Your task to perform on an android device: turn vacation reply on in the gmail app Image 0: 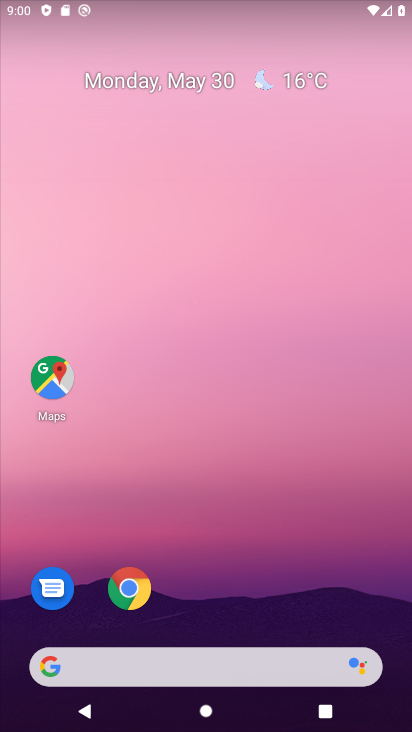
Step 0: drag from (185, 578) to (275, 10)
Your task to perform on an android device: turn vacation reply on in the gmail app Image 1: 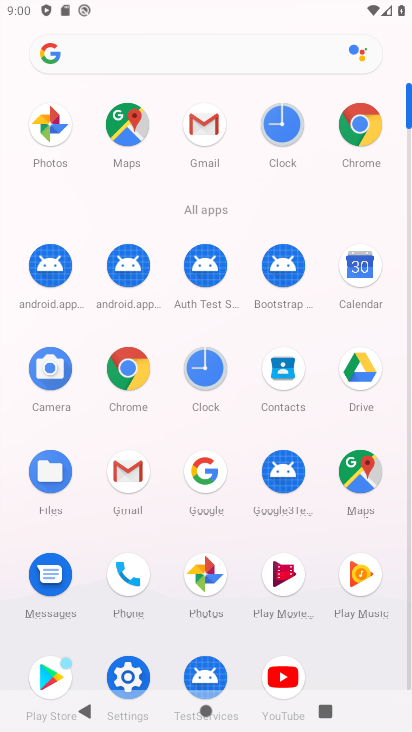
Step 1: drag from (179, 556) to (221, 373)
Your task to perform on an android device: turn vacation reply on in the gmail app Image 2: 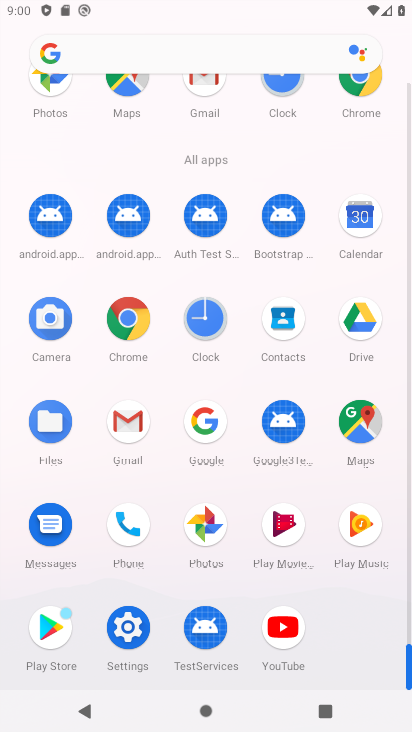
Step 2: click (134, 437)
Your task to perform on an android device: turn vacation reply on in the gmail app Image 3: 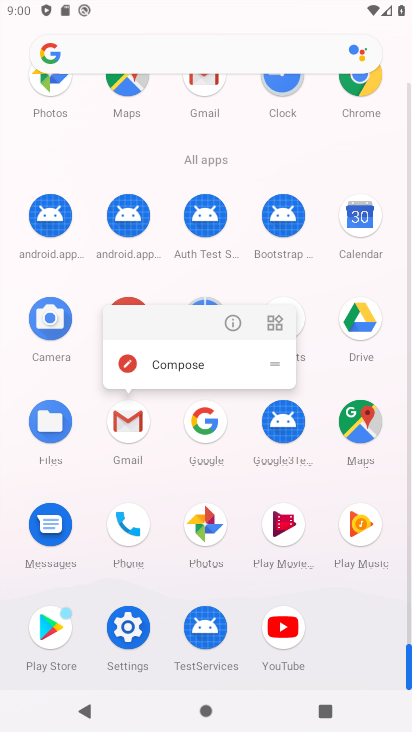
Step 3: click (140, 427)
Your task to perform on an android device: turn vacation reply on in the gmail app Image 4: 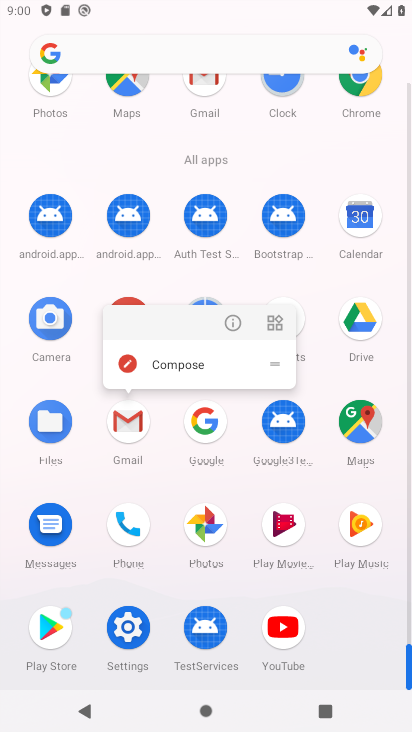
Step 4: click (124, 426)
Your task to perform on an android device: turn vacation reply on in the gmail app Image 5: 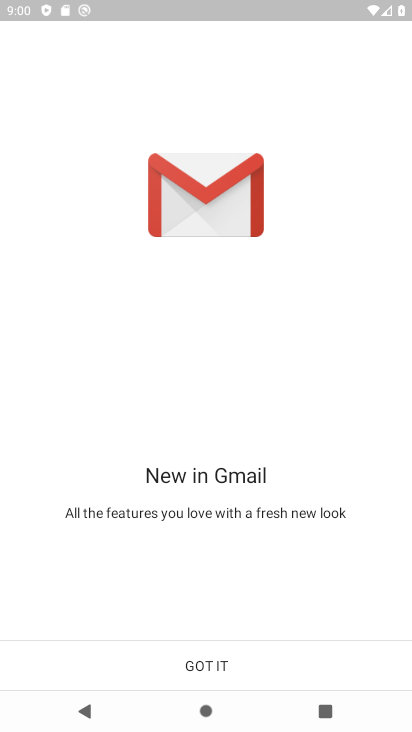
Step 5: click (214, 663)
Your task to perform on an android device: turn vacation reply on in the gmail app Image 6: 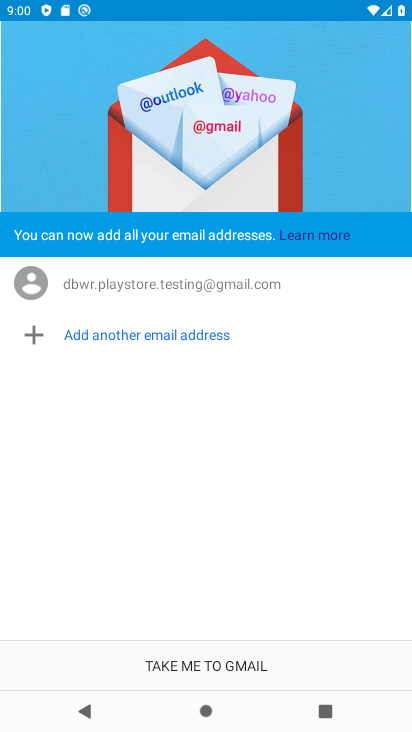
Step 6: click (238, 663)
Your task to perform on an android device: turn vacation reply on in the gmail app Image 7: 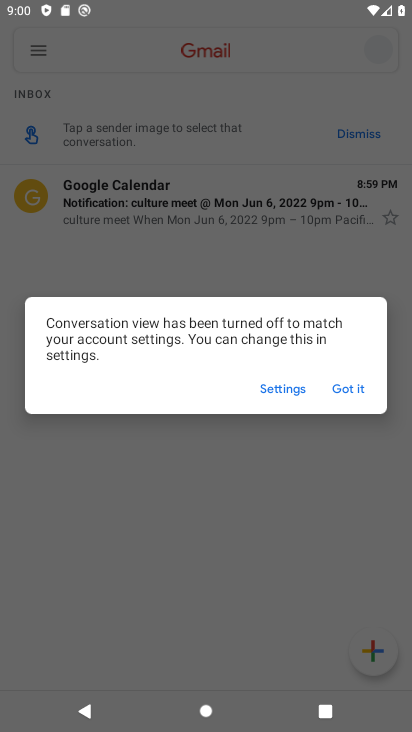
Step 7: click (365, 385)
Your task to perform on an android device: turn vacation reply on in the gmail app Image 8: 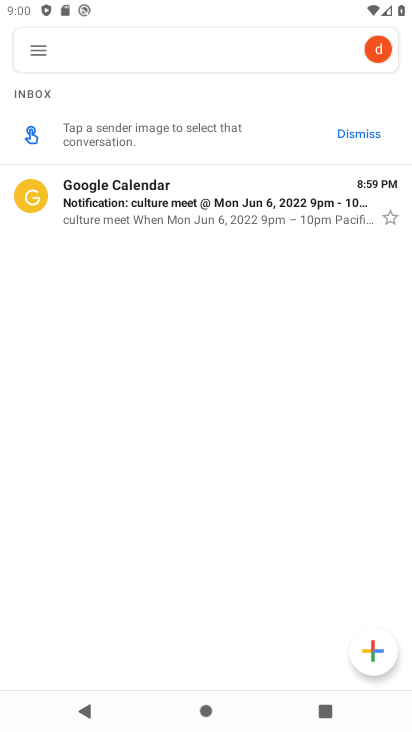
Step 8: click (52, 56)
Your task to perform on an android device: turn vacation reply on in the gmail app Image 9: 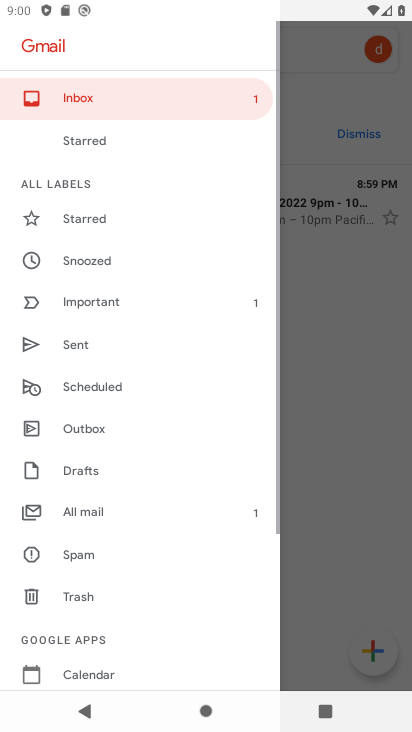
Step 9: drag from (119, 584) to (196, 216)
Your task to perform on an android device: turn vacation reply on in the gmail app Image 10: 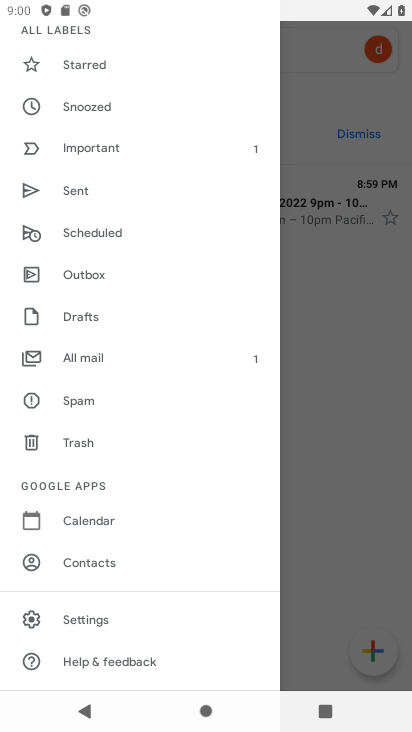
Step 10: click (117, 626)
Your task to perform on an android device: turn vacation reply on in the gmail app Image 11: 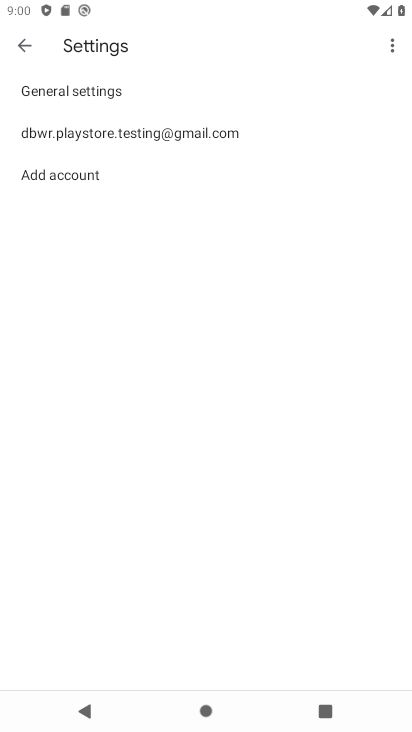
Step 11: click (250, 137)
Your task to perform on an android device: turn vacation reply on in the gmail app Image 12: 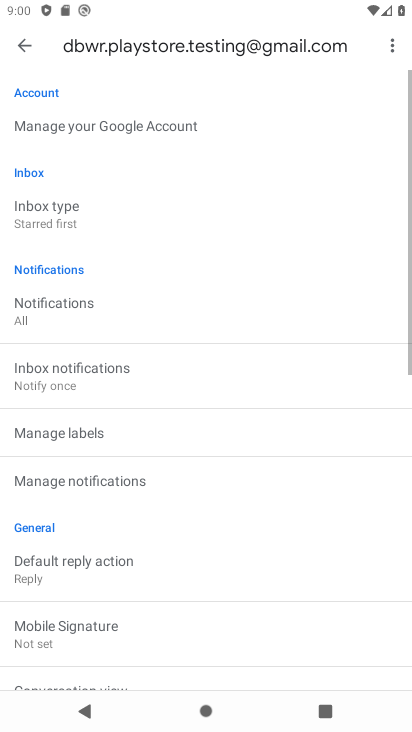
Step 12: drag from (197, 598) to (297, 185)
Your task to perform on an android device: turn vacation reply on in the gmail app Image 13: 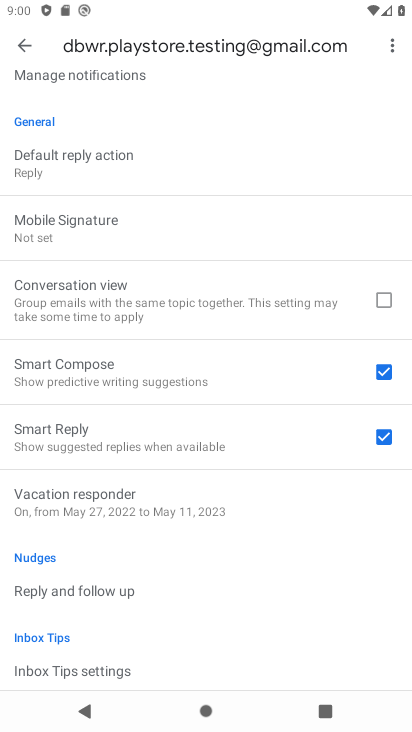
Step 13: drag from (161, 651) to (213, 557)
Your task to perform on an android device: turn vacation reply on in the gmail app Image 14: 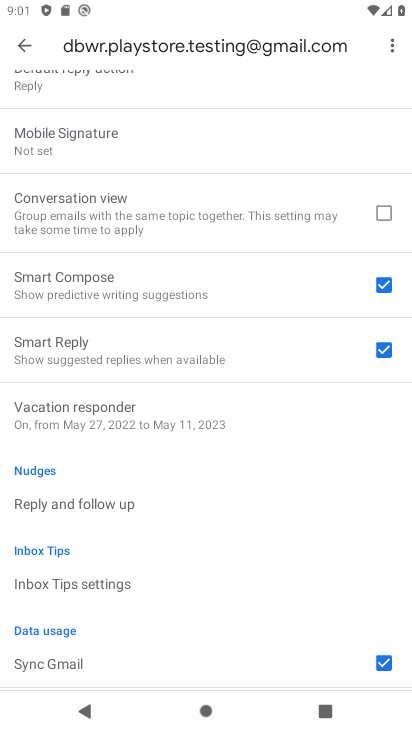
Step 14: click (198, 409)
Your task to perform on an android device: turn vacation reply on in the gmail app Image 15: 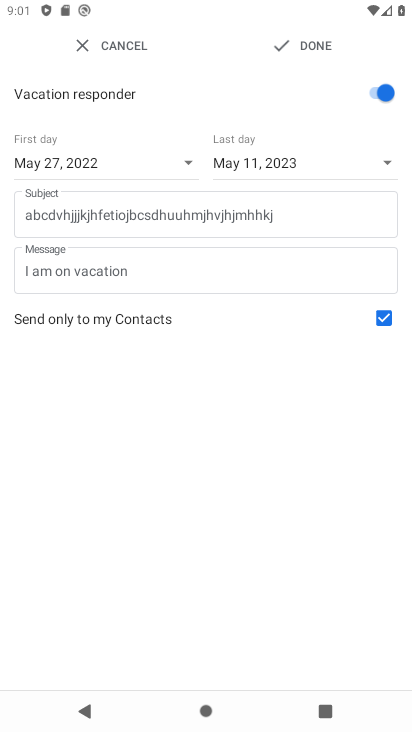
Step 15: task complete